Your task to perform on an android device: See recent photos Image 0: 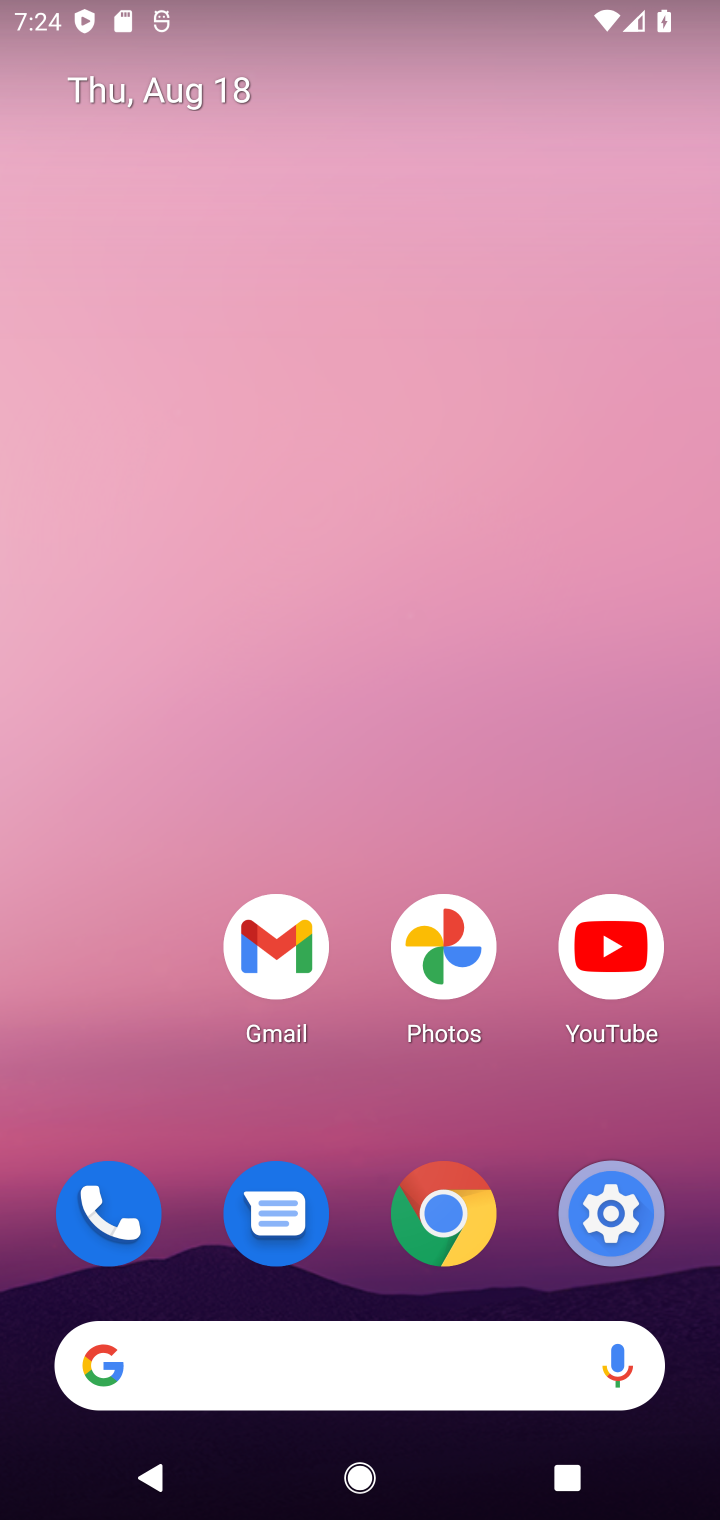
Step 0: task complete